Your task to perform on an android device: turn off location Image 0: 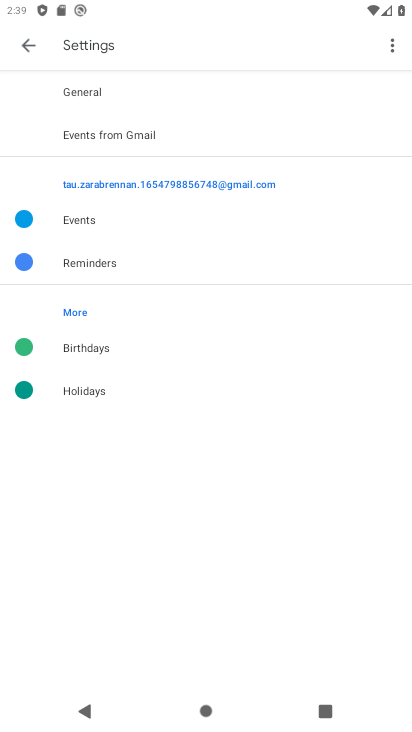
Step 0: press home button
Your task to perform on an android device: turn off location Image 1: 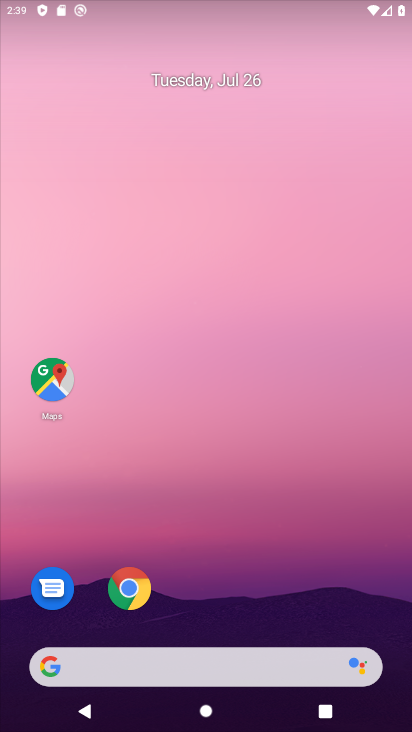
Step 1: drag from (224, 574) to (201, 64)
Your task to perform on an android device: turn off location Image 2: 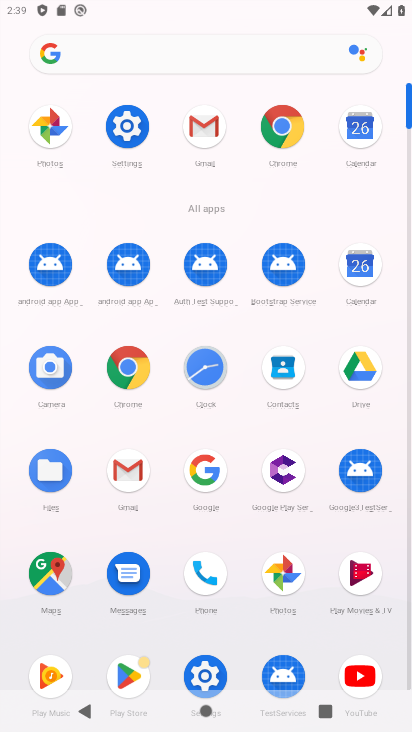
Step 2: click (133, 133)
Your task to perform on an android device: turn off location Image 3: 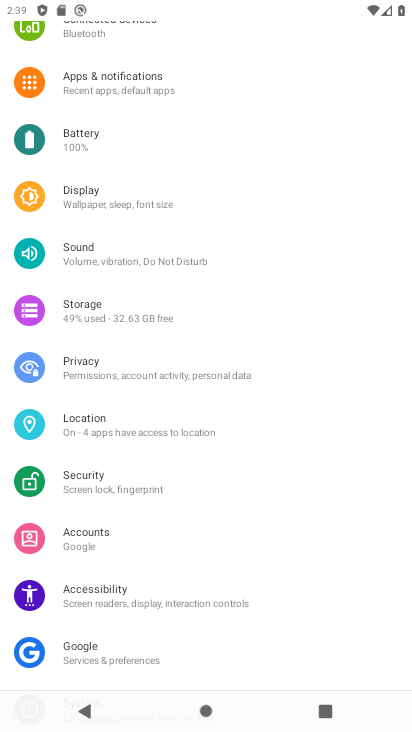
Step 3: click (96, 443)
Your task to perform on an android device: turn off location Image 4: 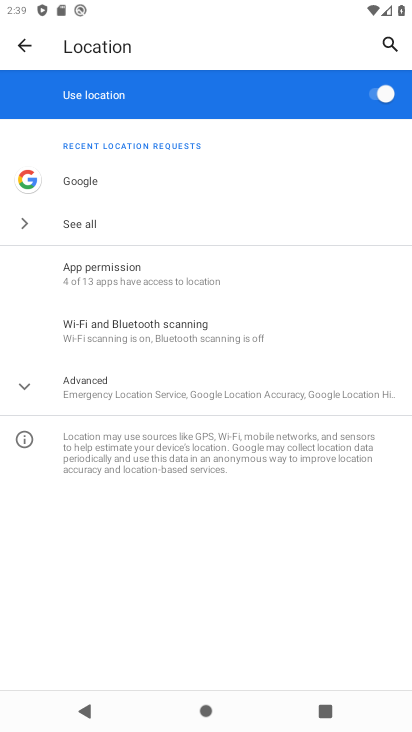
Step 4: click (384, 101)
Your task to perform on an android device: turn off location Image 5: 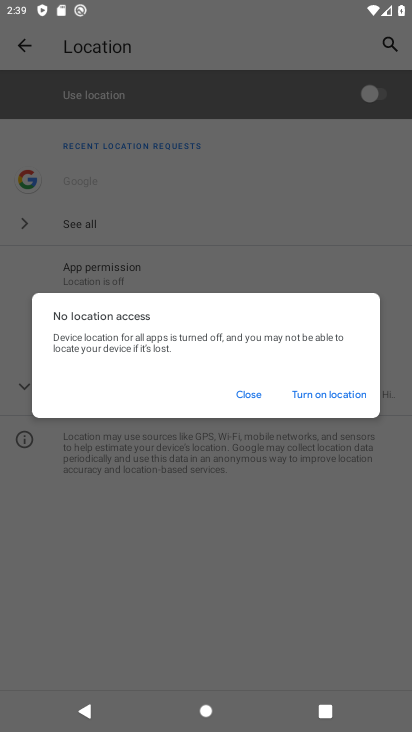
Step 5: task complete